Your task to perform on an android device: turn notification dots on Image 0: 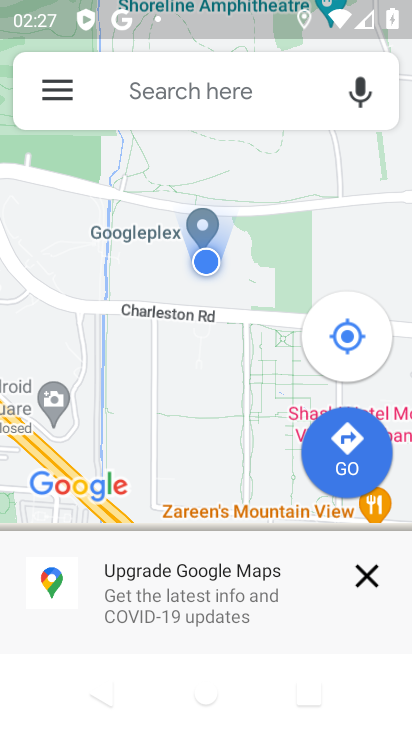
Step 0: press home button
Your task to perform on an android device: turn notification dots on Image 1: 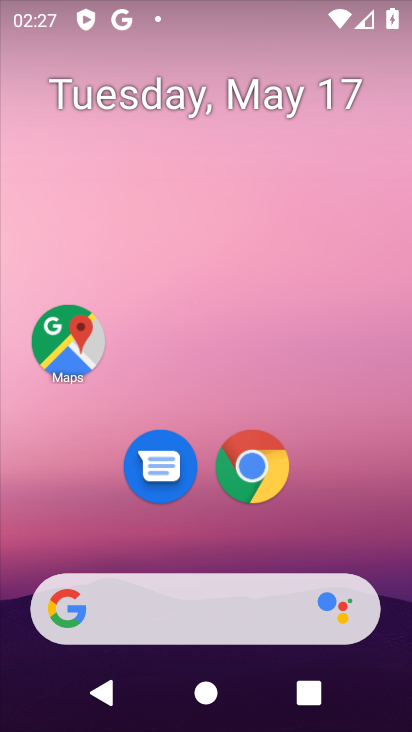
Step 1: drag from (307, 516) to (333, 18)
Your task to perform on an android device: turn notification dots on Image 2: 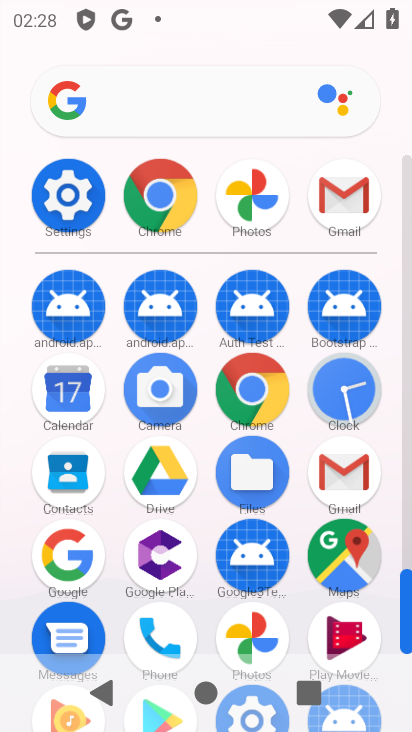
Step 2: click (67, 179)
Your task to perform on an android device: turn notification dots on Image 3: 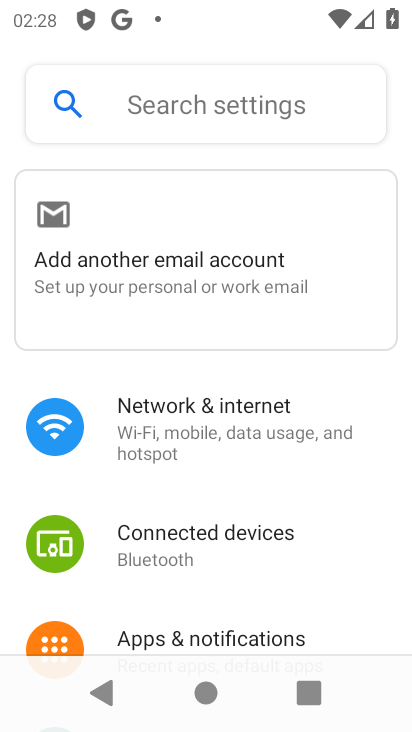
Step 3: drag from (222, 552) to (259, 168)
Your task to perform on an android device: turn notification dots on Image 4: 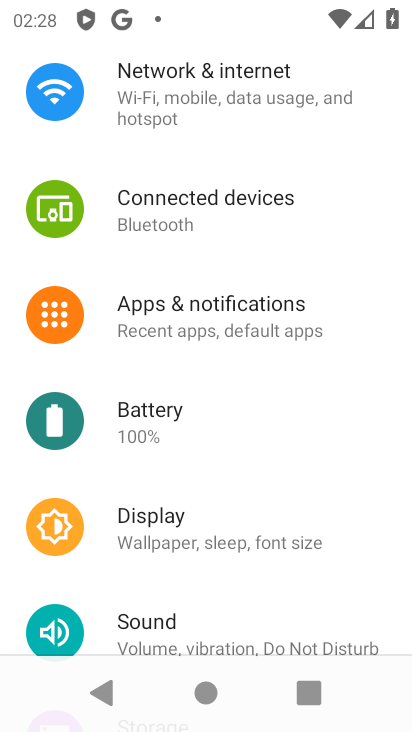
Step 4: click (191, 319)
Your task to perform on an android device: turn notification dots on Image 5: 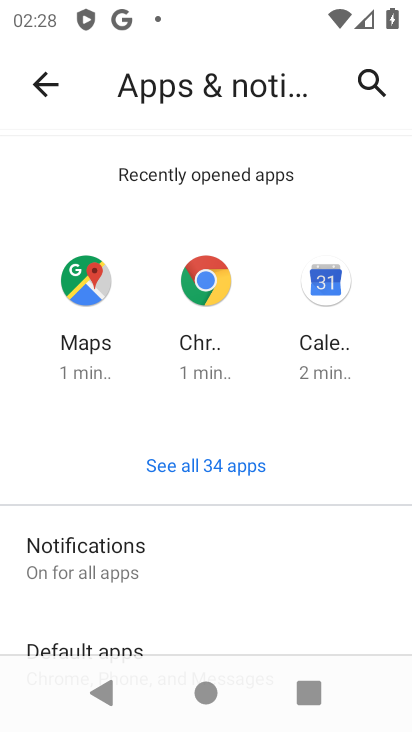
Step 5: drag from (149, 566) to (228, 177)
Your task to perform on an android device: turn notification dots on Image 6: 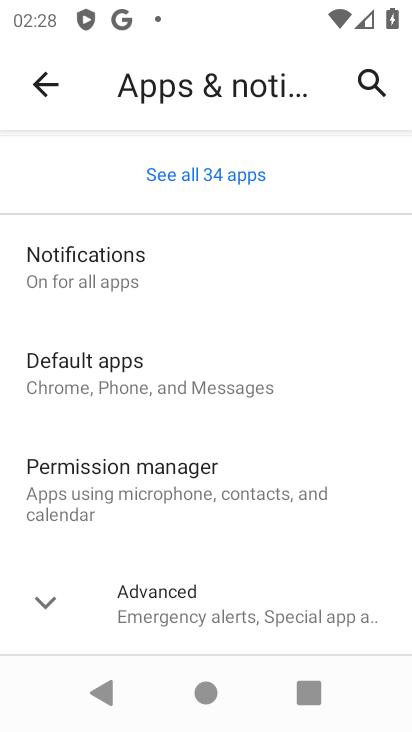
Step 6: click (137, 273)
Your task to perform on an android device: turn notification dots on Image 7: 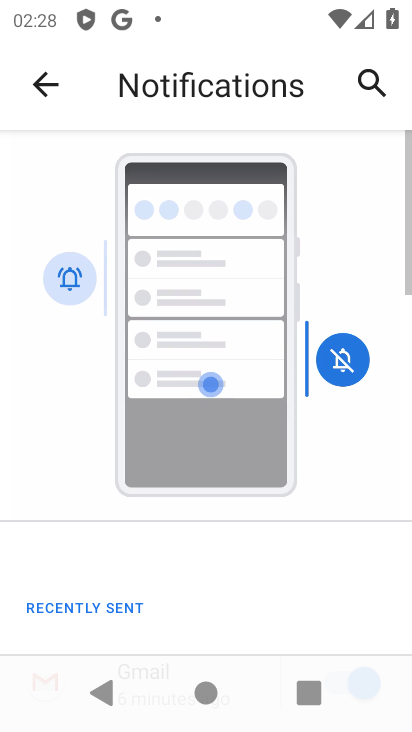
Step 7: drag from (228, 568) to (253, 115)
Your task to perform on an android device: turn notification dots on Image 8: 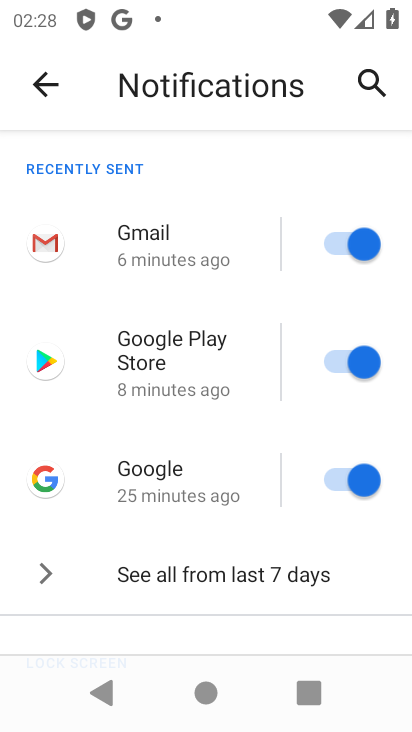
Step 8: drag from (201, 540) to (212, 162)
Your task to perform on an android device: turn notification dots on Image 9: 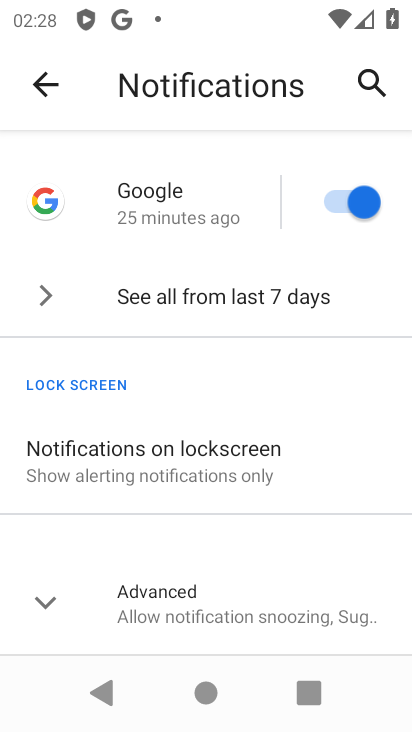
Step 9: click (169, 617)
Your task to perform on an android device: turn notification dots on Image 10: 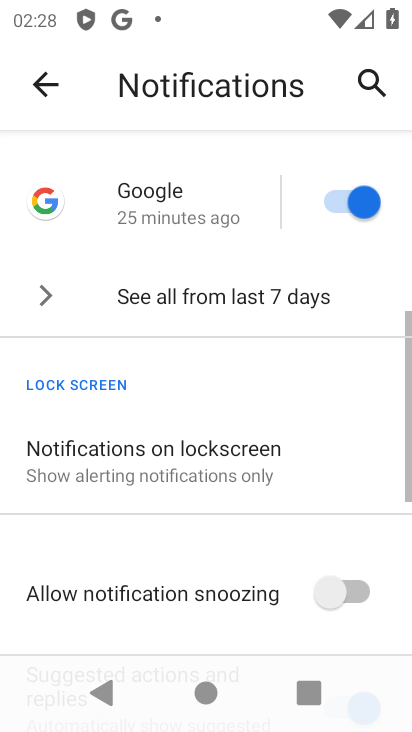
Step 10: drag from (196, 588) to (188, 164)
Your task to perform on an android device: turn notification dots on Image 11: 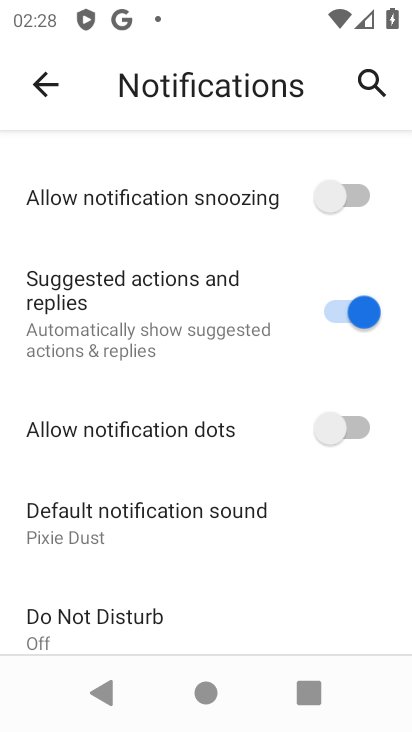
Step 11: click (346, 421)
Your task to perform on an android device: turn notification dots on Image 12: 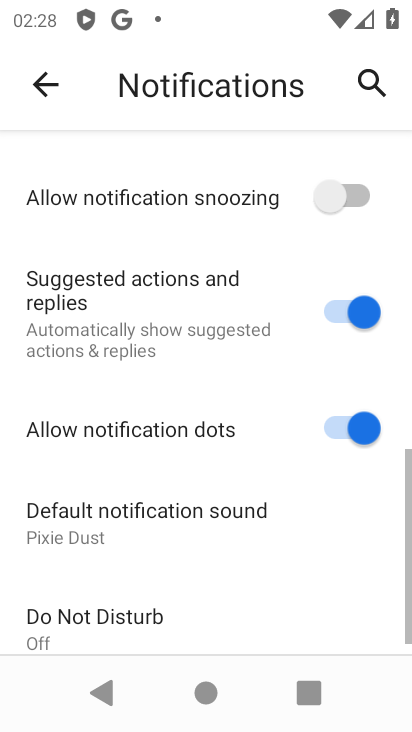
Step 12: task complete